Your task to perform on an android device: open app "Grab" Image 0: 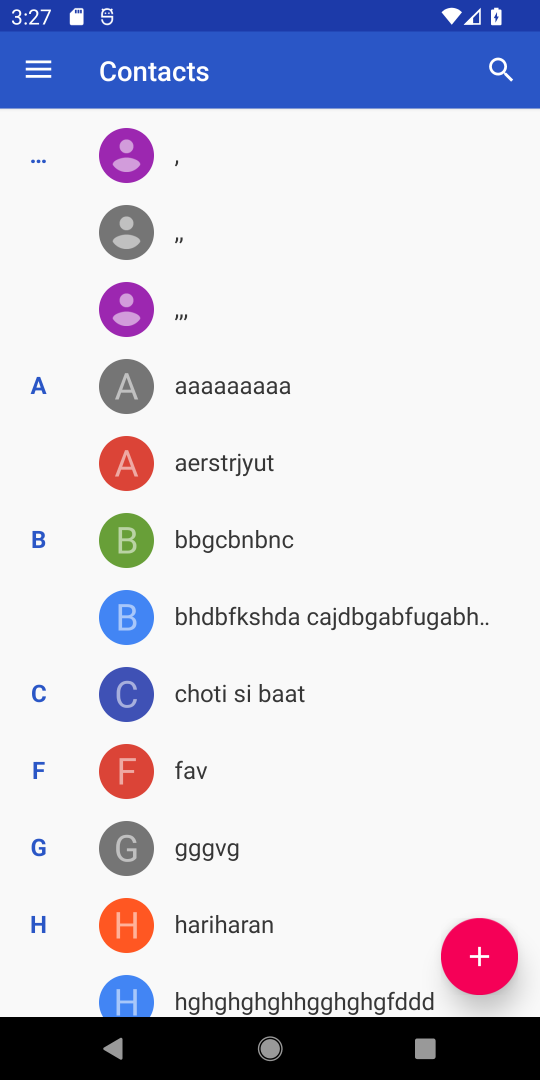
Step 0: press home button
Your task to perform on an android device: open app "Grab" Image 1: 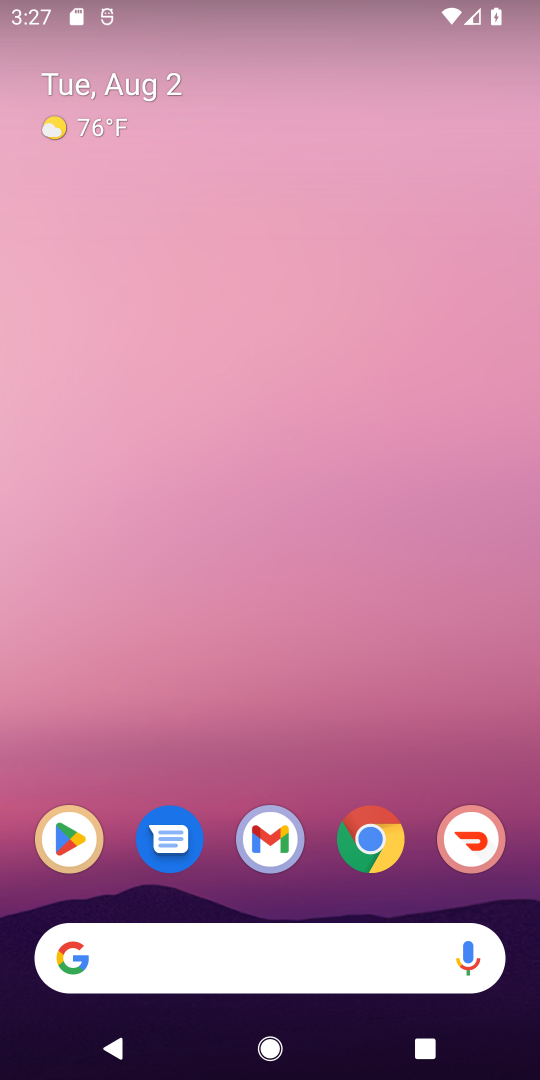
Step 1: click (74, 830)
Your task to perform on an android device: open app "Grab" Image 2: 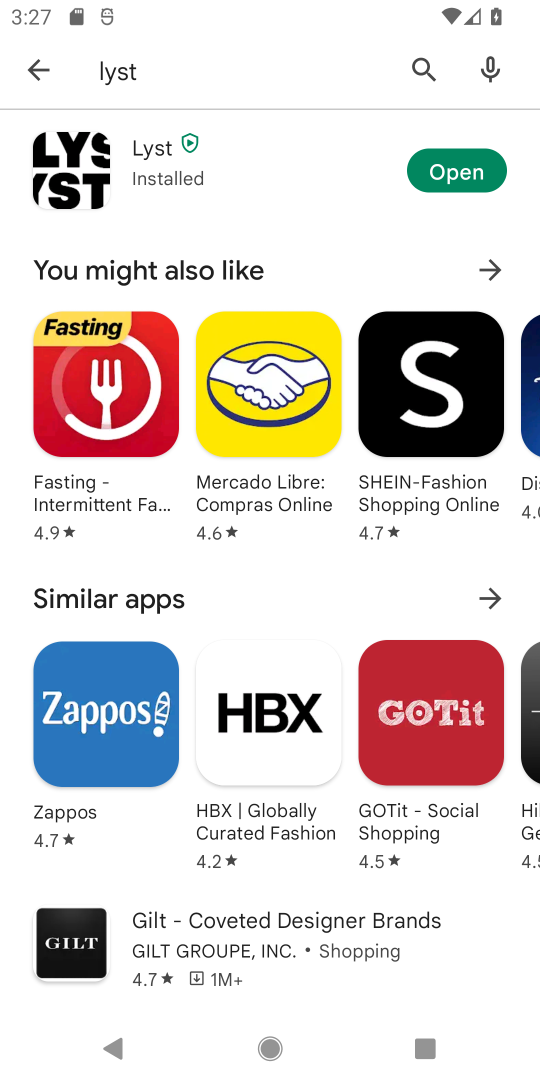
Step 2: click (423, 86)
Your task to perform on an android device: open app "Grab" Image 3: 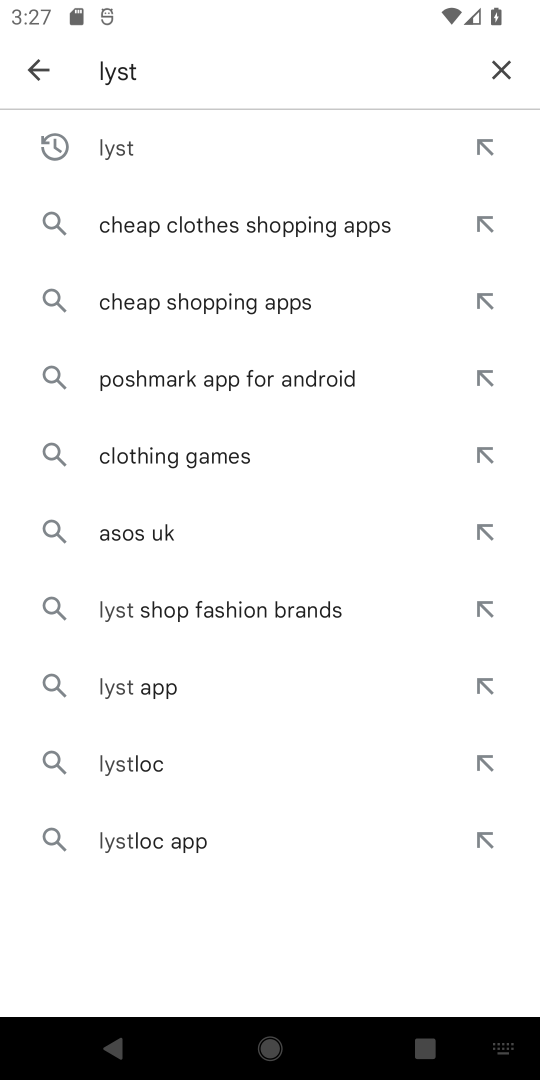
Step 3: click (490, 78)
Your task to perform on an android device: open app "Grab" Image 4: 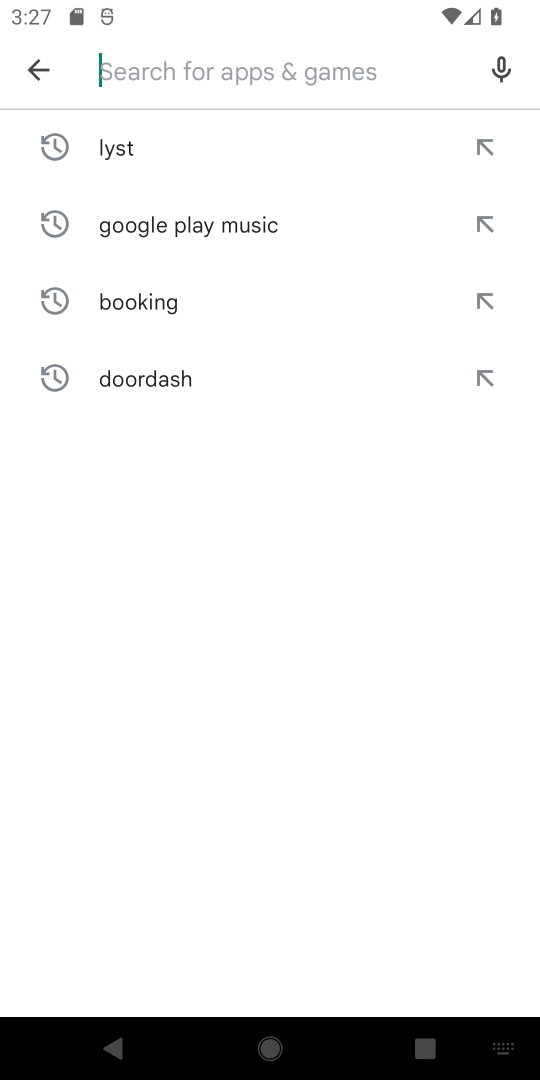
Step 4: type "grab"
Your task to perform on an android device: open app "Grab" Image 5: 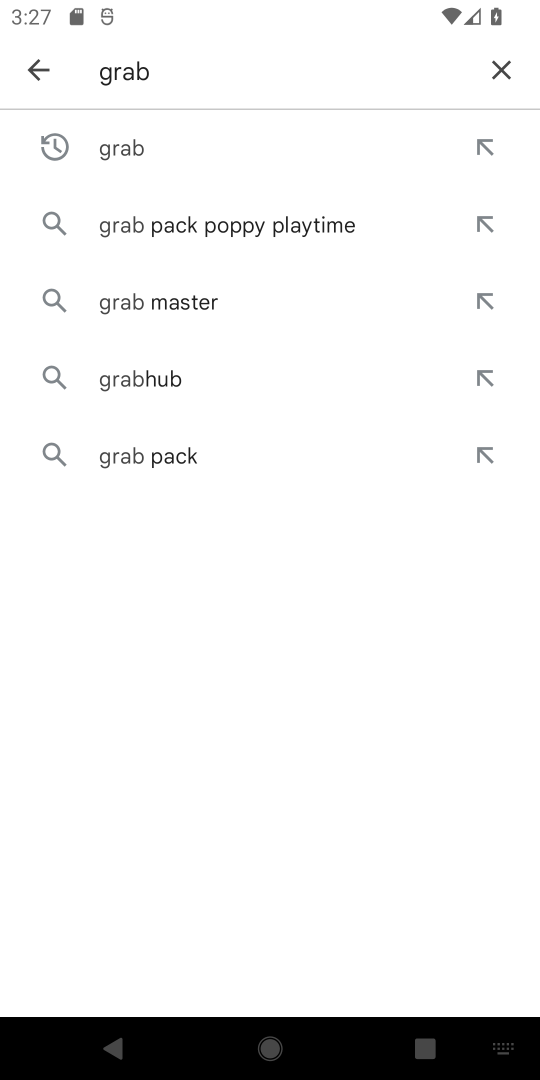
Step 5: click (219, 132)
Your task to perform on an android device: open app "Grab" Image 6: 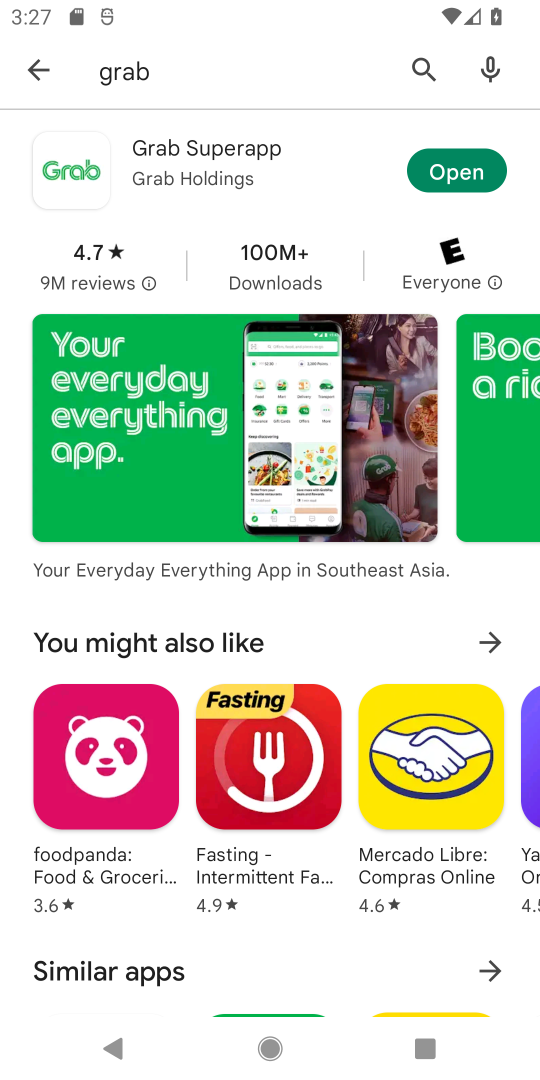
Step 6: click (465, 185)
Your task to perform on an android device: open app "Grab" Image 7: 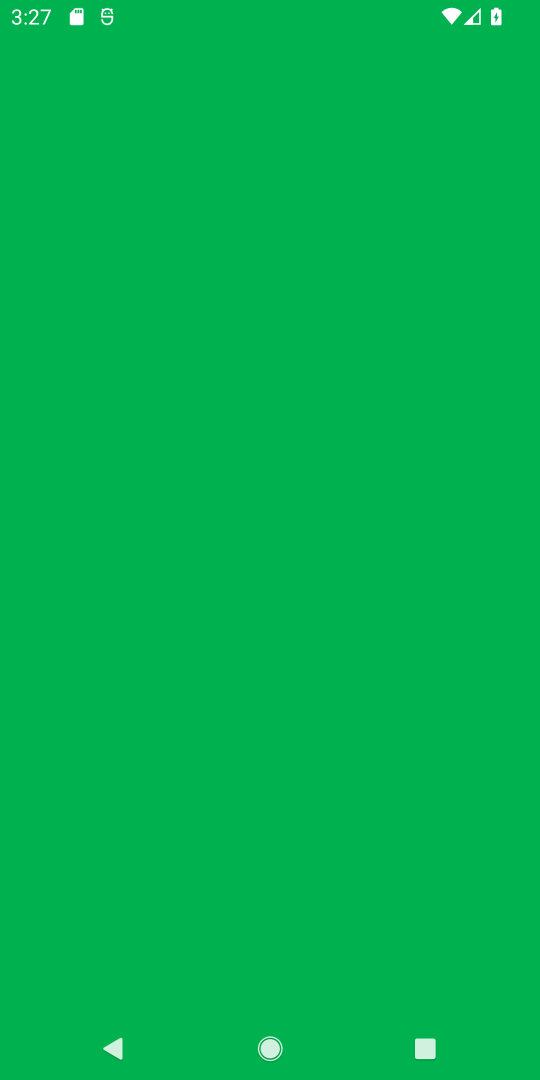
Step 7: task complete